Your task to perform on an android device: turn on sleep mode Image 0: 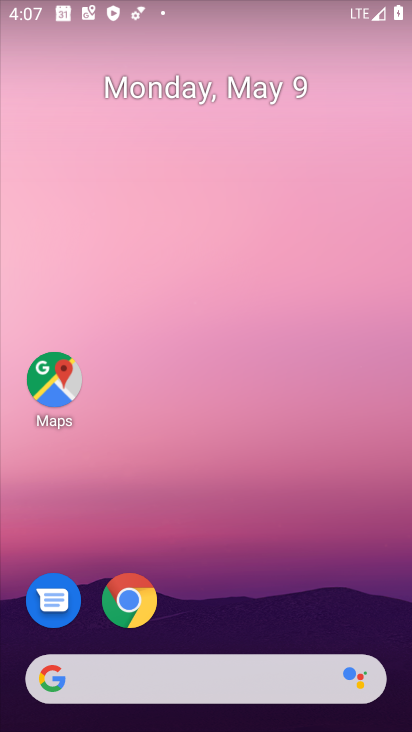
Step 0: drag from (338, 658) to (377, 18)
Your task to perform on an android device: turn on sleep mode Image 1: 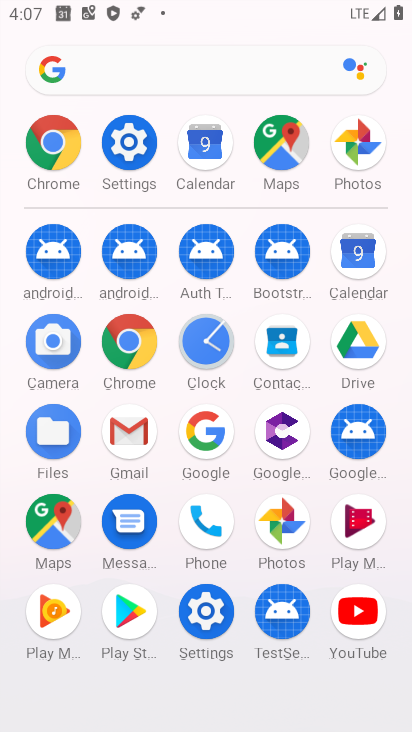
Step 1: click (114, 138)
Your task to perform on an android device: turn on sleep mode Image 2: 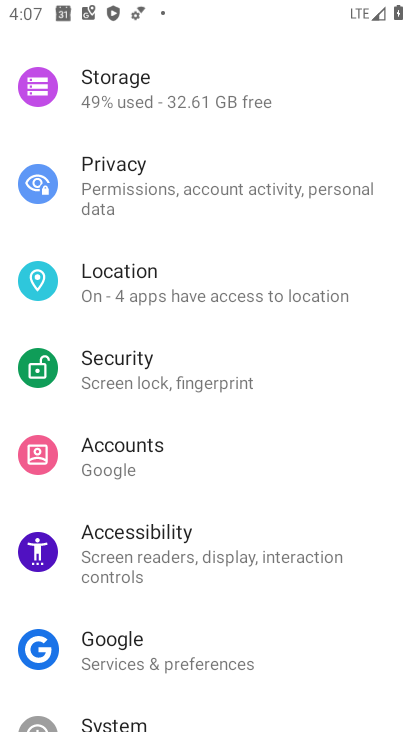
Step 2: drag from (209, 128) to (220, 578)
Your task to perform on an android device: turn on sleep mode Image 3: 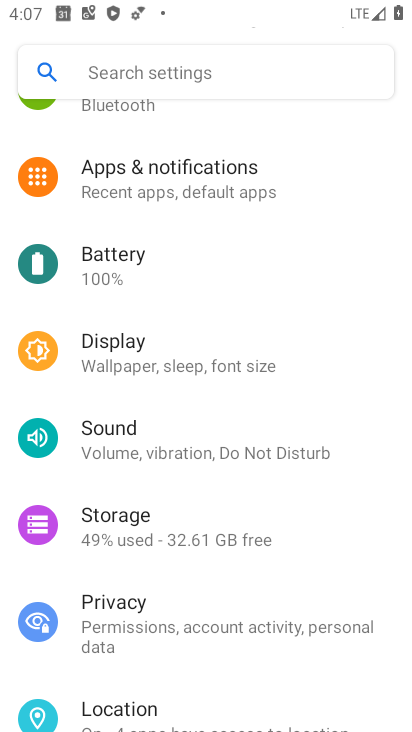
Step 3: click (176, 359)
Your task to perform on an android device: turn on sleep mode Image 4: 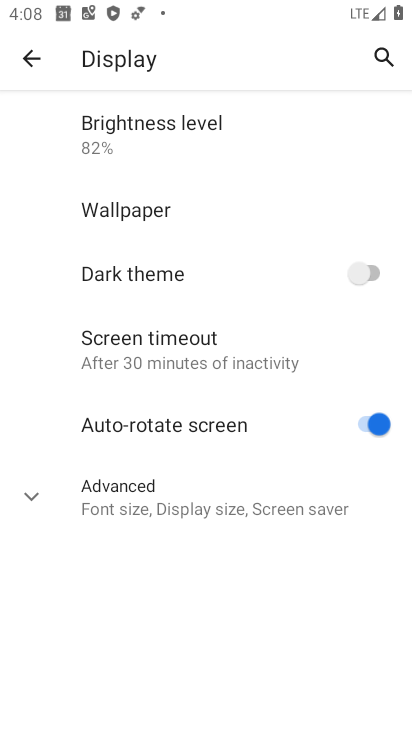
Step 4: task complete